Your task to perform on an android device: Turn on the flashlight Image 0: 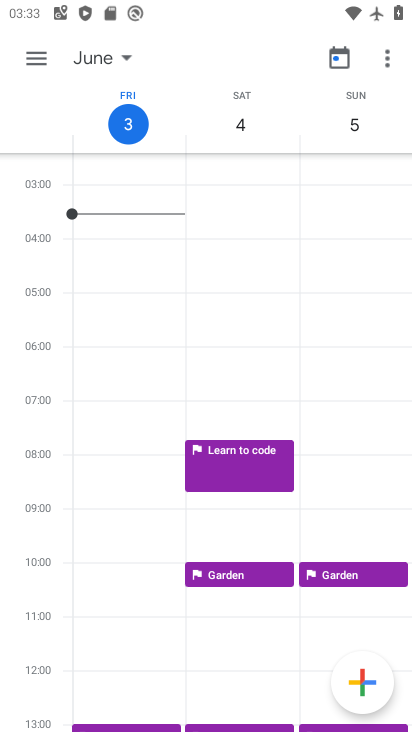
Step 0: press home button
Your task to perform on an android device: Turn on the flashlight Image 1: 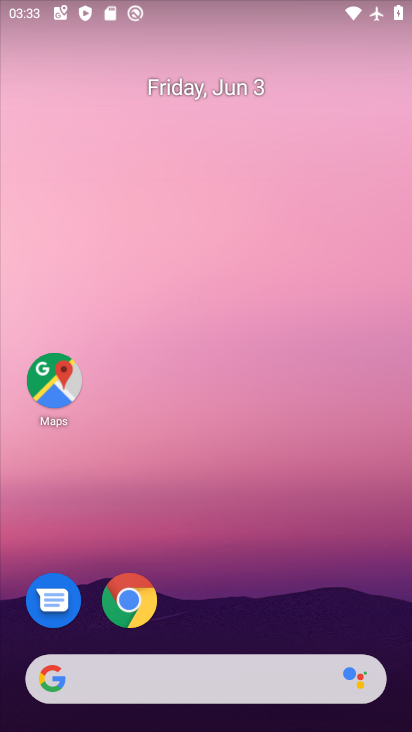
Step 1: drag from (198, 626) to (313, 0)
Your task to perform on an android device: Turn on the flashlight Image 2: 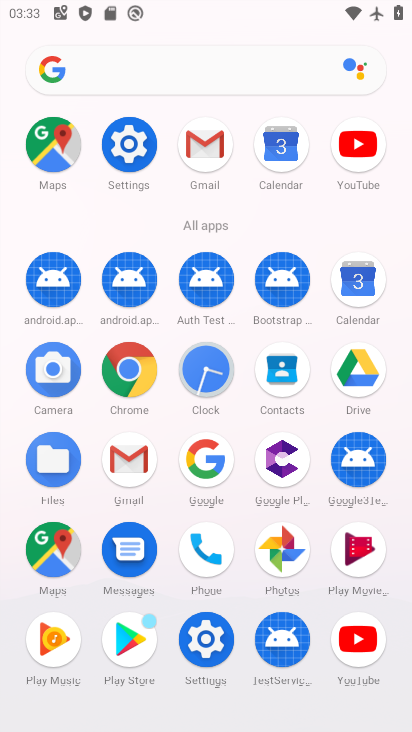
Step 2: click (122, 168)
Your task to perform on an android device: Turn on the flashlight Image 3: 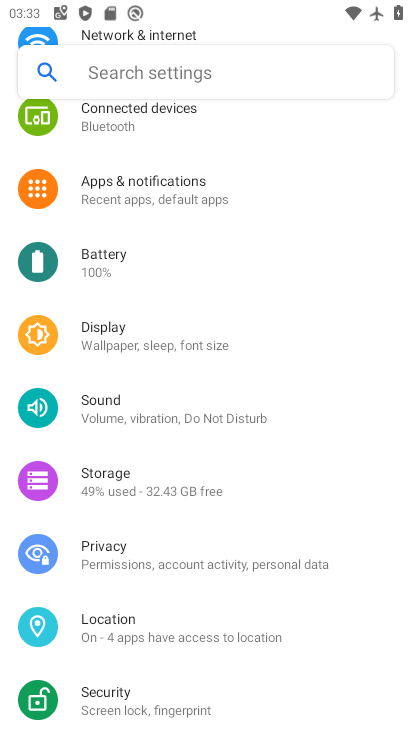
Step 3: click (211, 66)
Your task to perform on an android device: Turn on the flashlight Image 4: 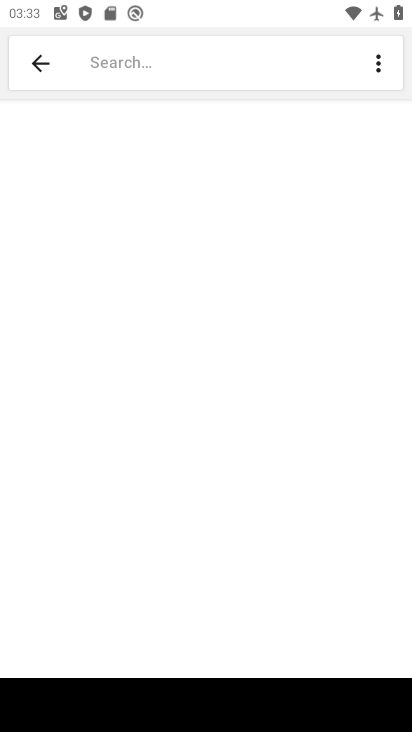
Step 4: type "flashlight"
Your task to perform on an android device: Turn on the flashlight Image 5: 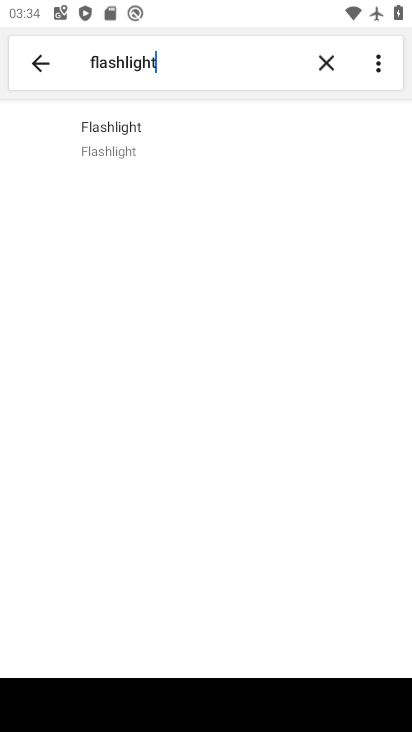
Step 5: click (177, 144)
Your task to perform on an android device: Turn on the flashlight Image 6: 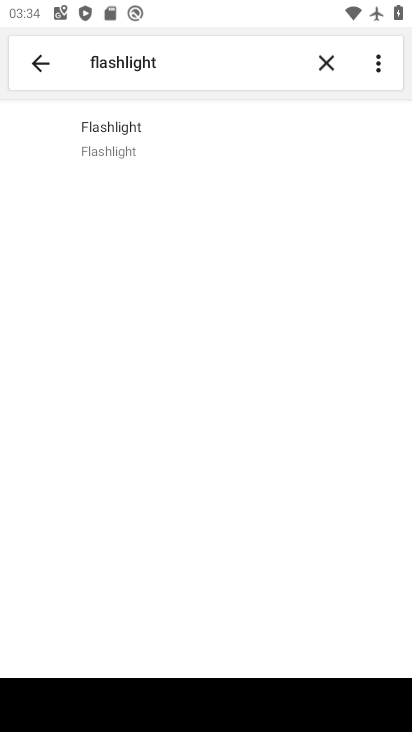
Step 6: click (143, 127)
Your task to perform on an android device: Turn on the flashlight Image 7: 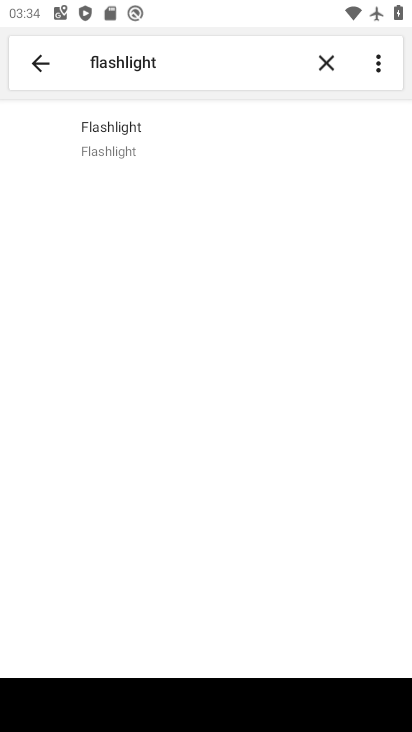
Step 7: click (138, 130)
Your task to perform on an android device: Turn on the flashlight Image 8: 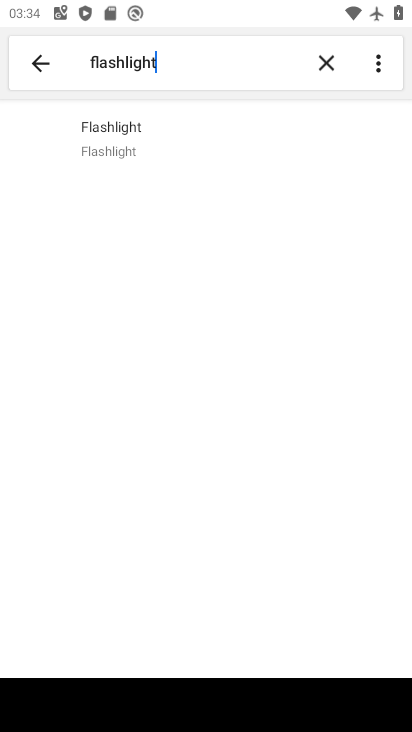
Step 8: task complete